Your task to perform on an android device: turn off data saver in the chrome app Image 0: 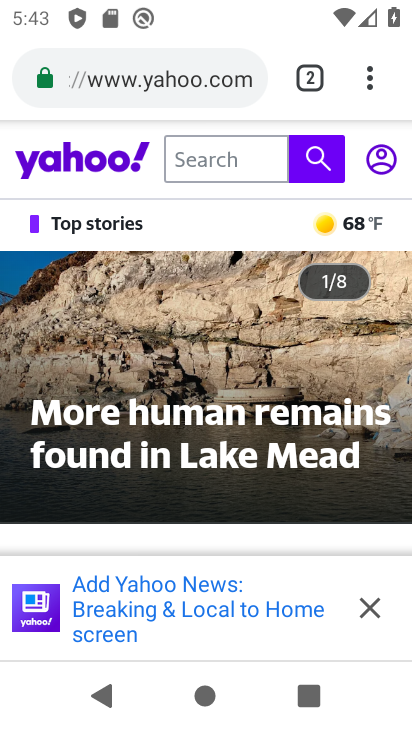
Step 0: click (370, 73)
Your task to perform on an android device: turn off data saver in the chrome app Image 1: 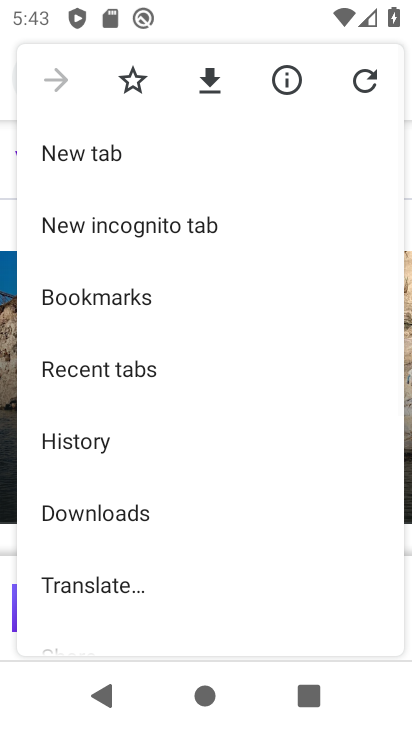
Step 1: drag from (200, 260) to (200, 201)
Your task to perform on an android device: turn off data saver in the chrome app Image 2: 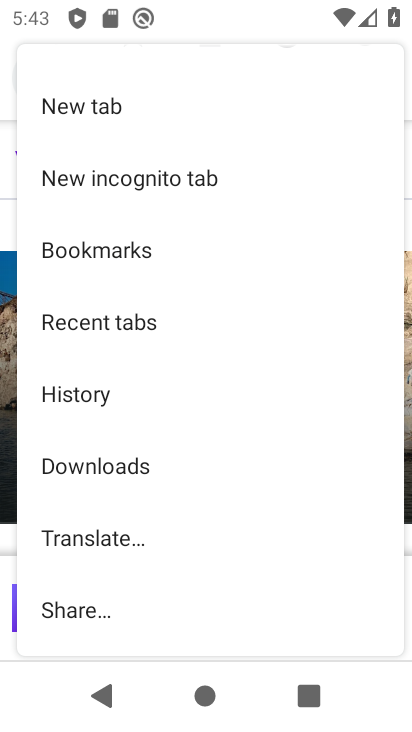
Step 2: drag from (131, 587) to (152, 310)
Your task to perform on an android device: turn off data saver in the chrome app Image 3: 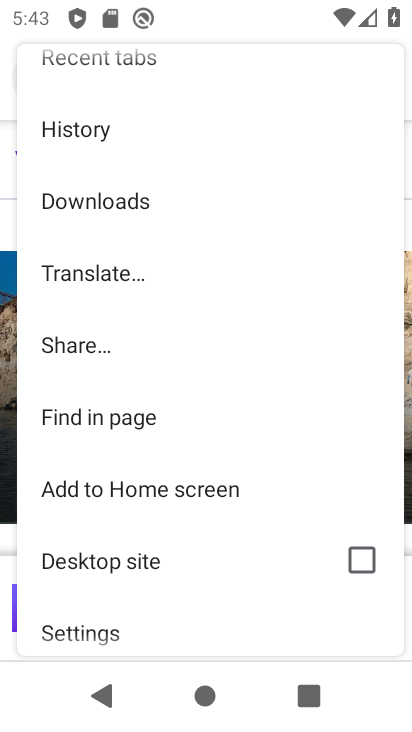
Step 3: drag from (172, 543) to (162, 234)
Your task to perform on an android device: turn off data saver in the chrome app Image 4: 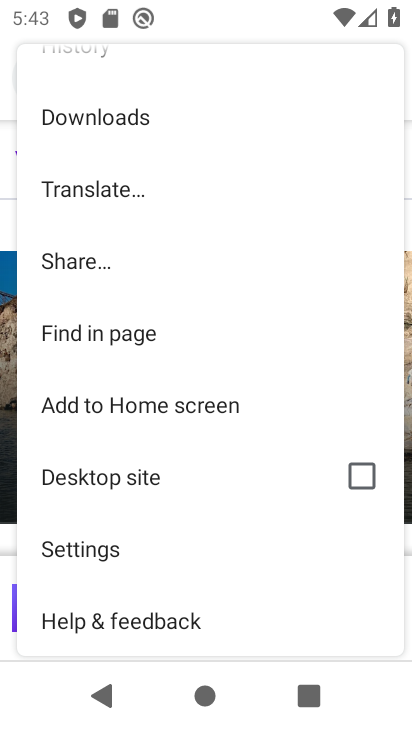
Step 4: click (77, 553)
Your task to perform on an android device: turn off data saver in the chrome app Image 5: 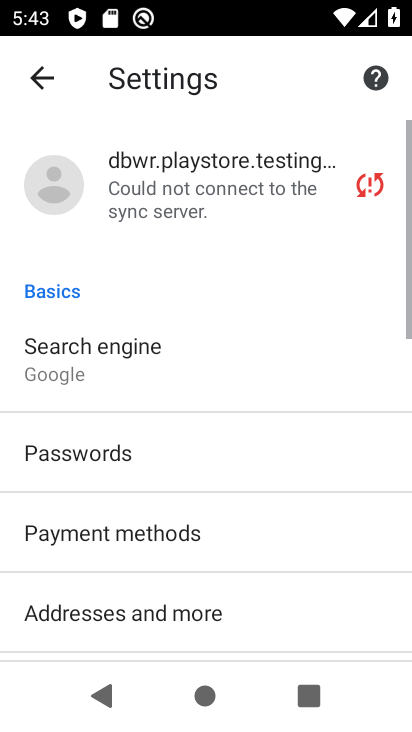
Step 5: drag from (201, 604) to (235, 338)
Your task to perform on an android device: turn off data saver in the chrome app Image 6: 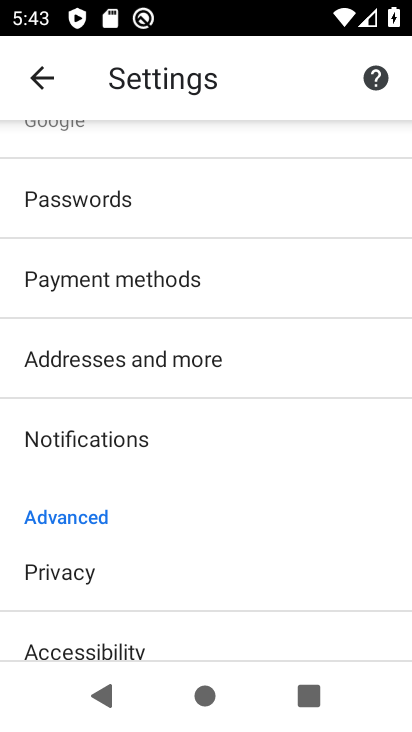
Step 6: drag from (190, 579) to (201, 232)
Your task to perform on an android device: turn off data saver in the chrome app Image 7: 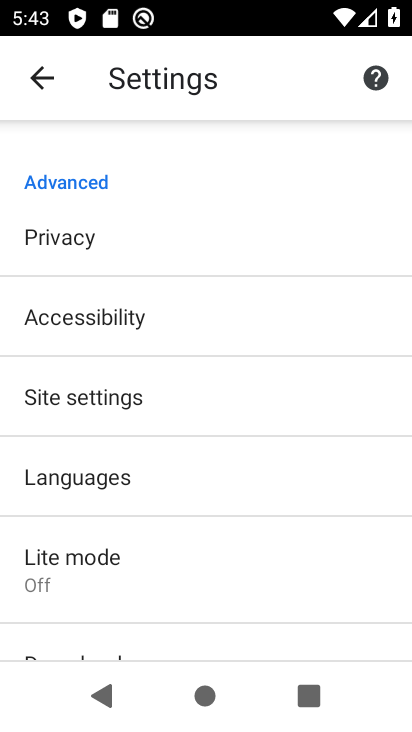
Step 7: drag from (89, 615) to (118, 468)
Your task to perform on an android device: turn off data saver in the chrome app Image 8: 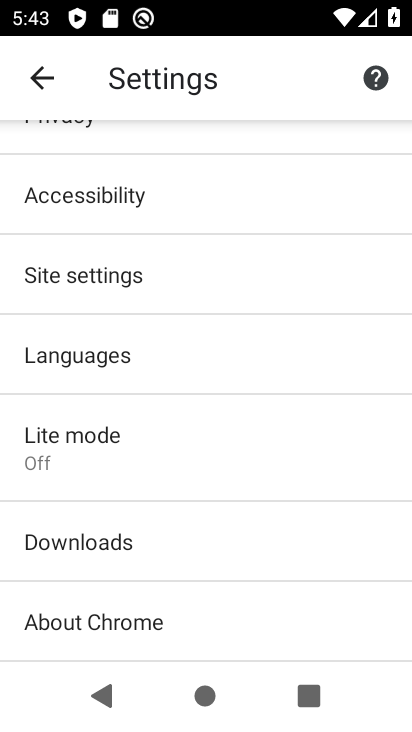
Step 8: click (91, 455)
Your task to perform on an android device: turn off data saver in the chrome app Image 9: 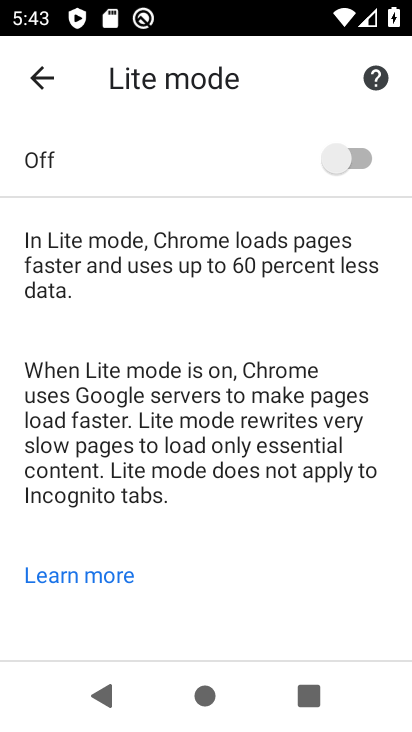
Step 9: task complete